Your task to perform on an android device: change the clock display to analog Image 0: 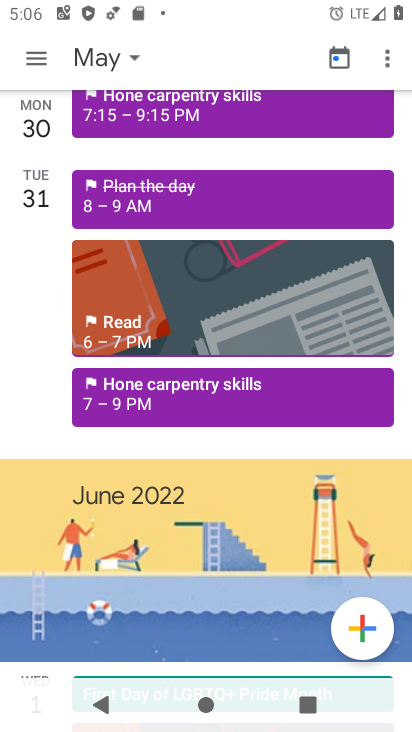
Step 0: press back button
Your task to perform on an android device: change the clock display to analog Image 1: 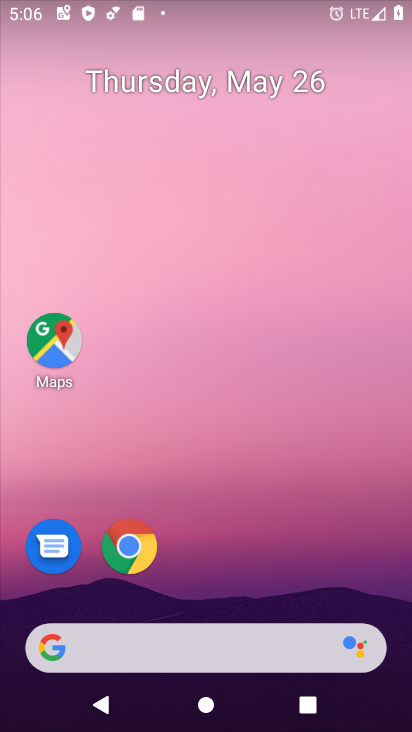
Step 1: drag from (287, 528) to (343, 20)
Your task to perform on an android device: change the clock display to analog Image 2: 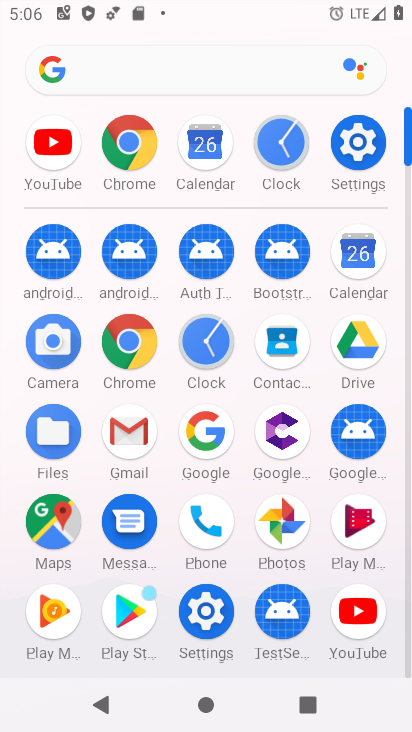
Step 2: click (217, 338)
Your task to perform on an android device: change the clock display to analog Image 3: 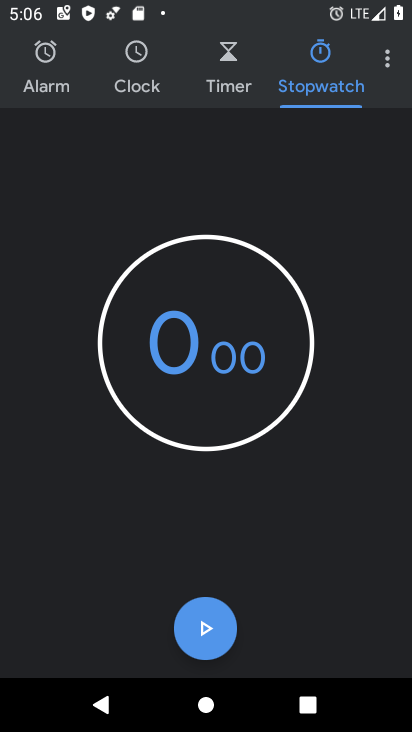
Step 3: click (380, 49)
Your task to perform on an android device: change the clock display to analog Image 4: 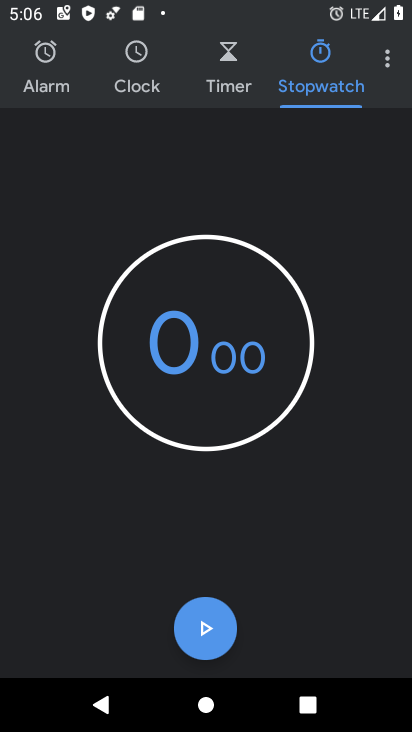
Step 4: click (384, 51)
Your task to perform on an android device: change the clock display to analog Image 5: 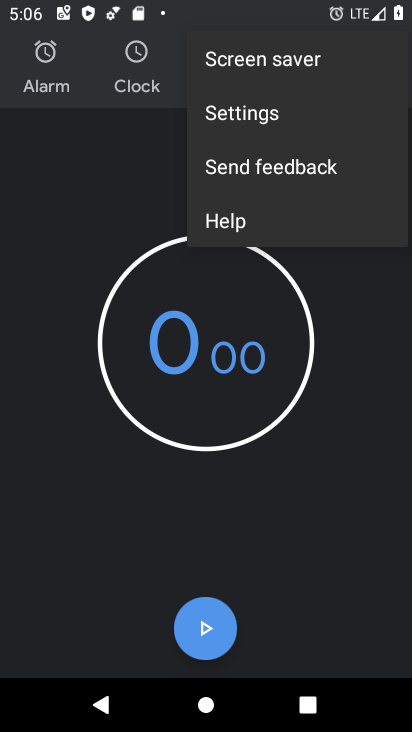
Step 5: click (258, 124)
Your task to perform on an android device: change the clock display to analog Image 6: 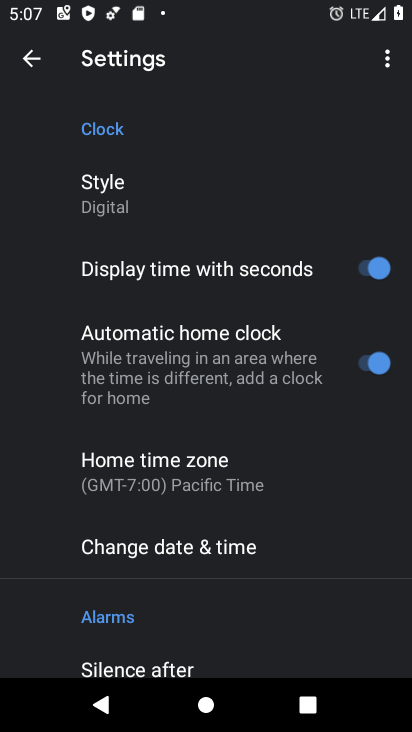
Step 6: click (104, 194)
Your task to perform on an android device: change the clock display to analog Image 7: 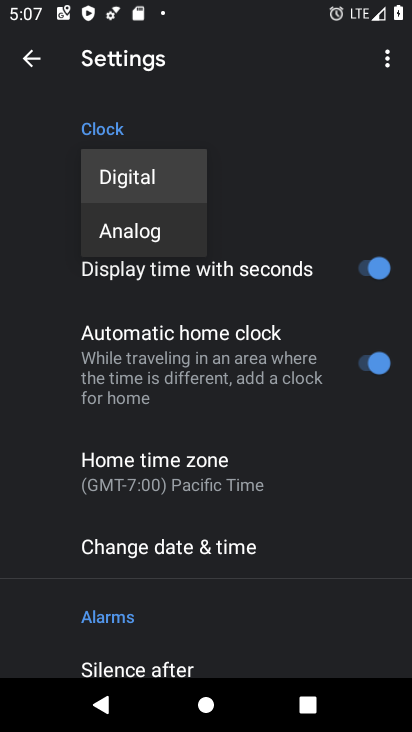
Step 7: click (140, 239)
Your task to perform on an android device: change the clock display to analog Image 8: 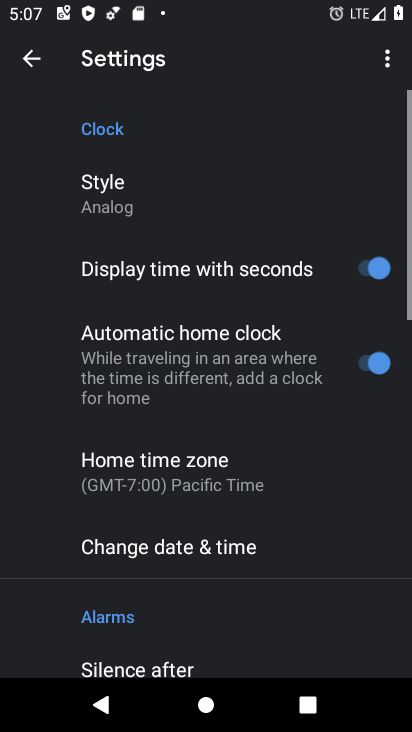
Step 8: task complete